Your task to perform on an android device: Open calendar and show me the first week of next month Image 0: 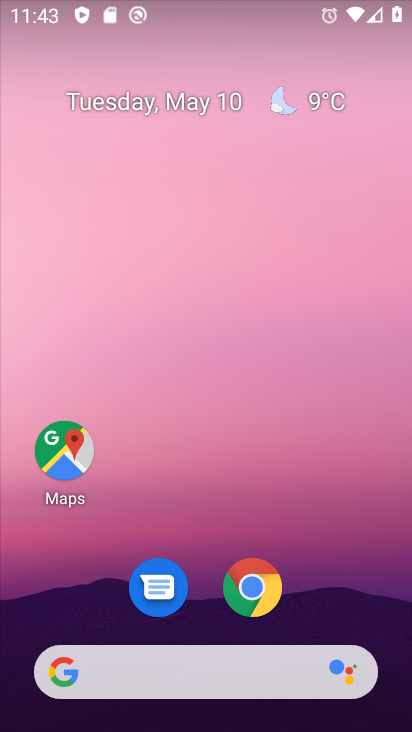
Step 0: drag from (341, 612) to (366, 17)
Your task to perform on an android device: Open calendar and show me the first week of next month Image 1: 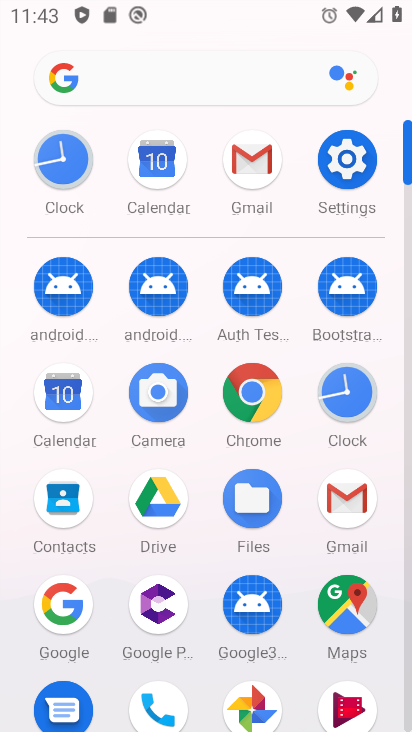
Step 1: click (161, 159)
Your task to perform on an android device: Open calendar and show me the first week of next month Image 2: 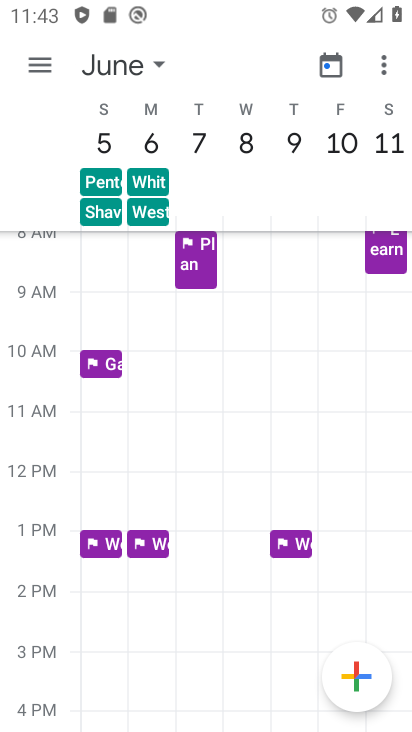
Step 2: task complete